Your task to perform on an android device: Open the stopwatch Image 0: 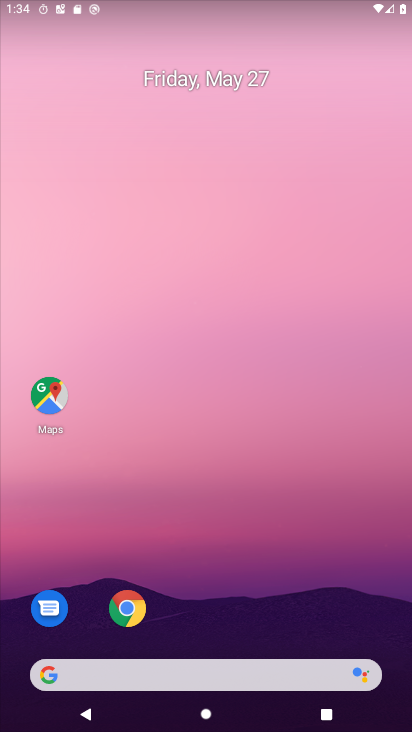
Step 0: drag from (385, 688) to (357, 291)
Your task to perform on an android device: Open the stopwatch Image 1: 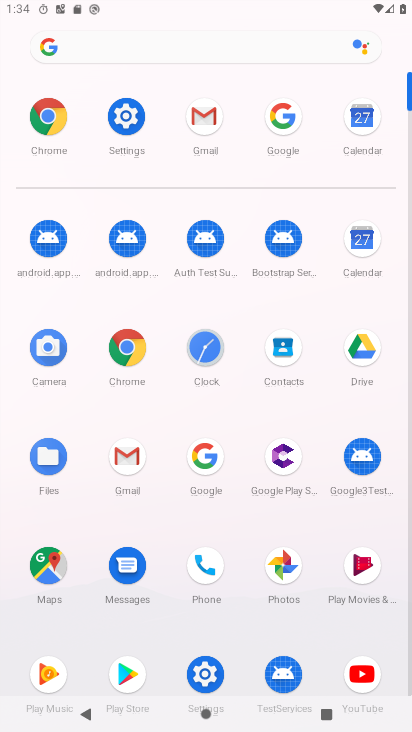
Step 1: click (201, 353)
Your task to perform on an android device: Open the stopwatch Image 2: 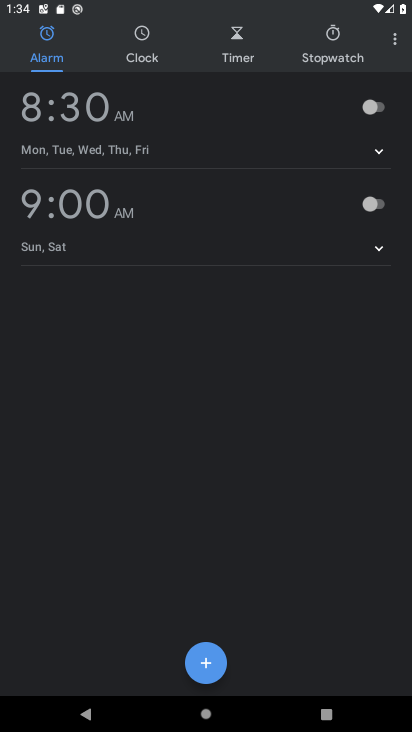
Step 2: click (227, 51)
Your task to perform on an android device: Open the stopwatch Image 3: 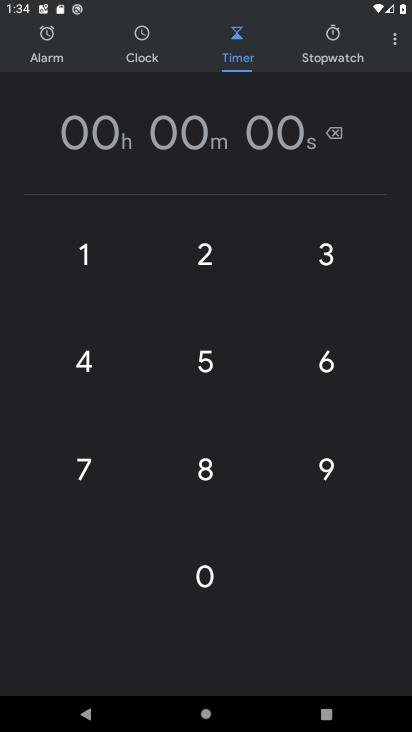
Step 3: click (329, 42)
Your task to perform on an android device: Open the stopwatch Image 4: 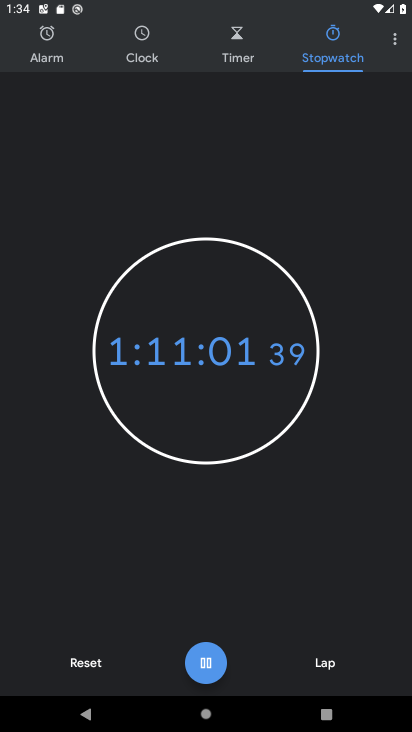
Step 4: task complete